Your task to perform on an android device: What is the news today? Image 0: 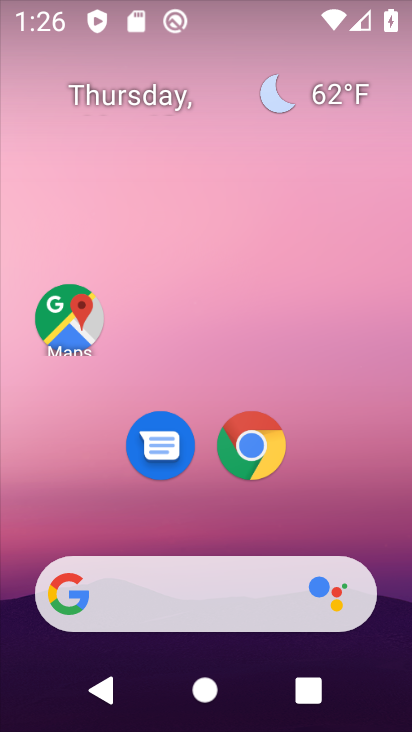
Step 0: click (228, 611)
Your task to perform on an android device: What is the news today? Image 1: 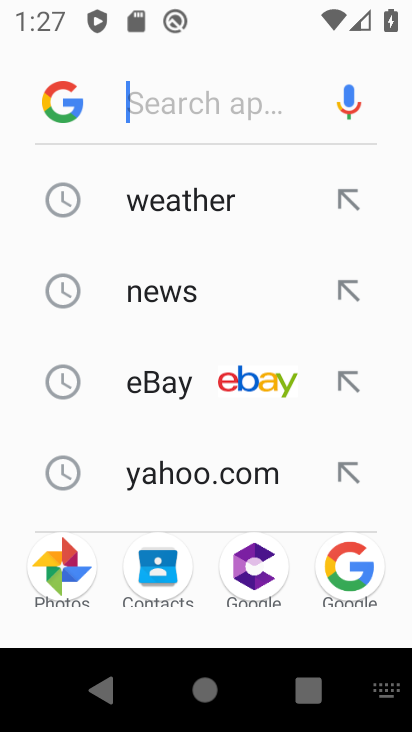
Step 1: type "what is the news today"
Your task to perform on an android device: What is the news today? Image 2: 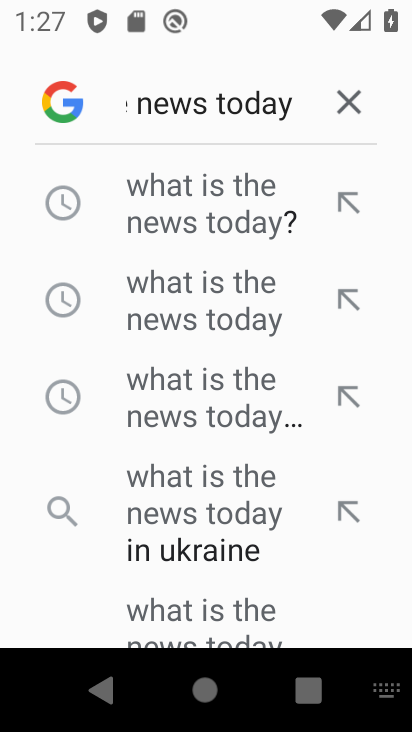
Step 2: click (214, 216)
Your task to perform on an android device: What is the news today? Image 3: 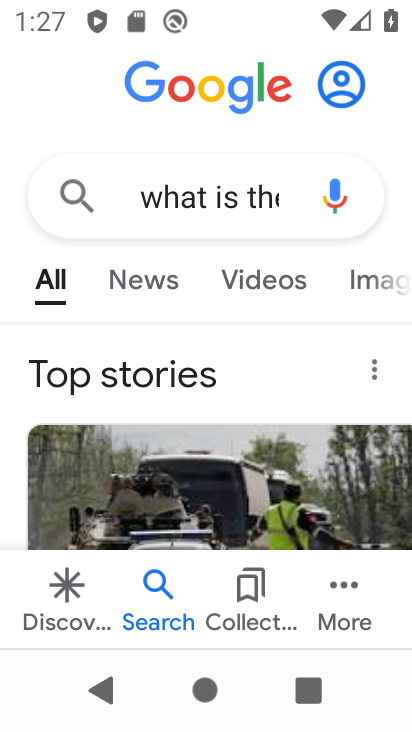
Step 3: click (166, 272)
Your task to perform on an android device: What is the news today? Image 4: 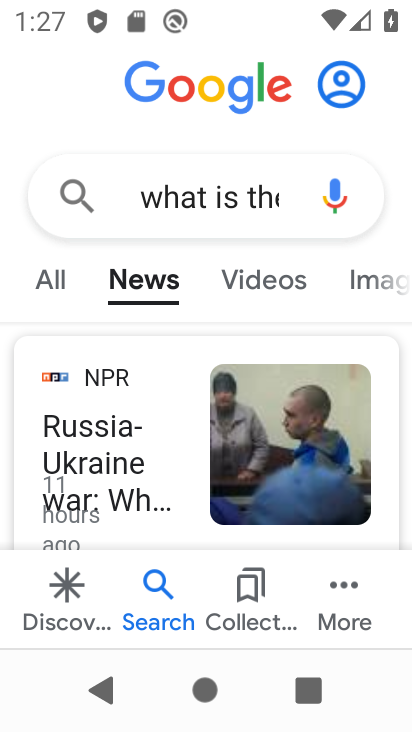
Step 4: task complete